Your task to perform on an android device: toggle improve location accuracy Image 0: 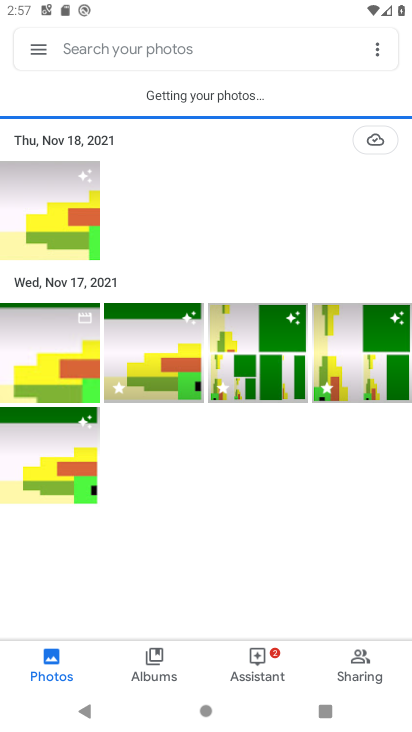
Step 0: press home button
Your task to perform on an android device: toggle improve location accuracy Image 1: 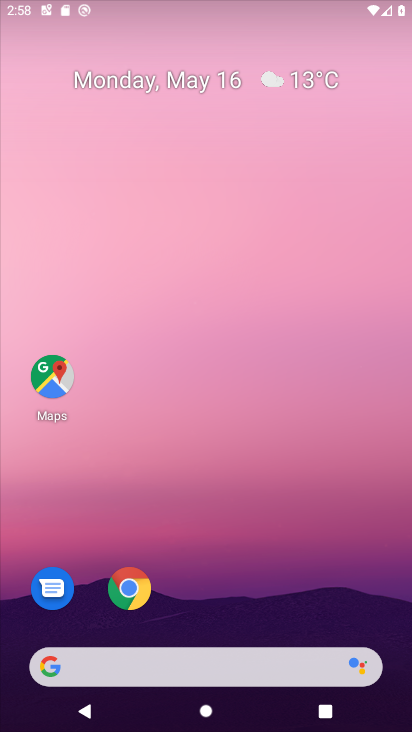
Step 1: drag from (222, 647) to (325, 5)
Your task to perform on an android device: toggle improve location accuracy Image 2: 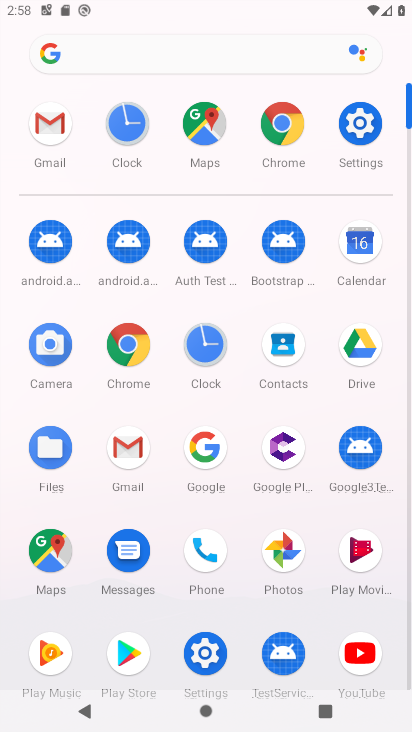
Step 2: click (352, 118)
Your task to perform on an android device: toggle improve location accuracy Image 3: 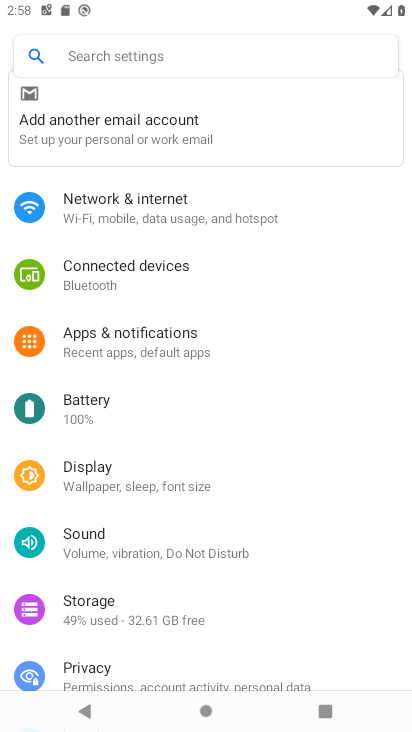
Step 3: drag from (175, 619) to (195, 120)
Your task to perform on an android device: toggle improve location accuracy Image 4: 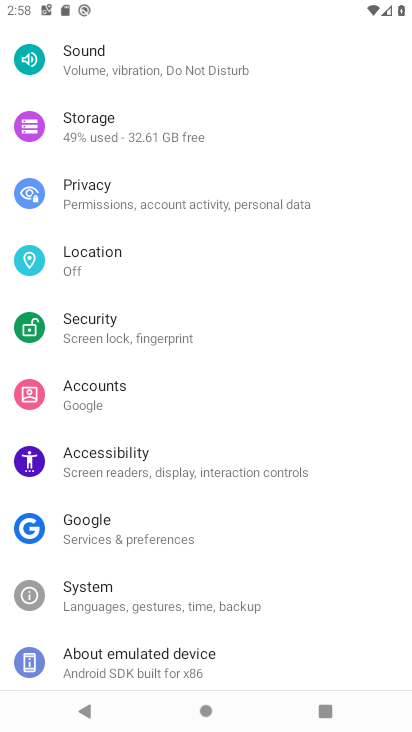
Step 4: click (115, 271)
Your task to perform on an android device: toggle improve location accuracy Image 5: 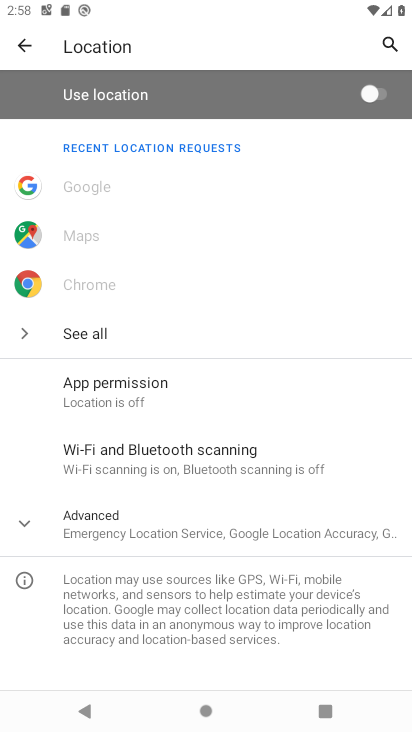
Step 5: click (384, 94)
Your task to perform on an android device: toggle improve location accuracy Image 6: 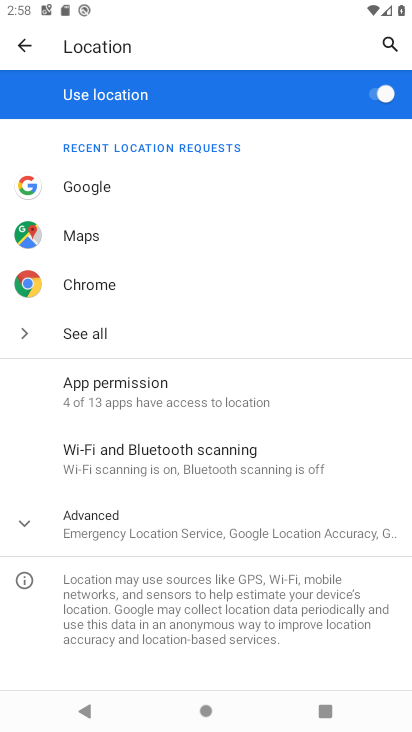
Step 6: task complete